Your task to perform on an android device: change text size in settings app Image 0: 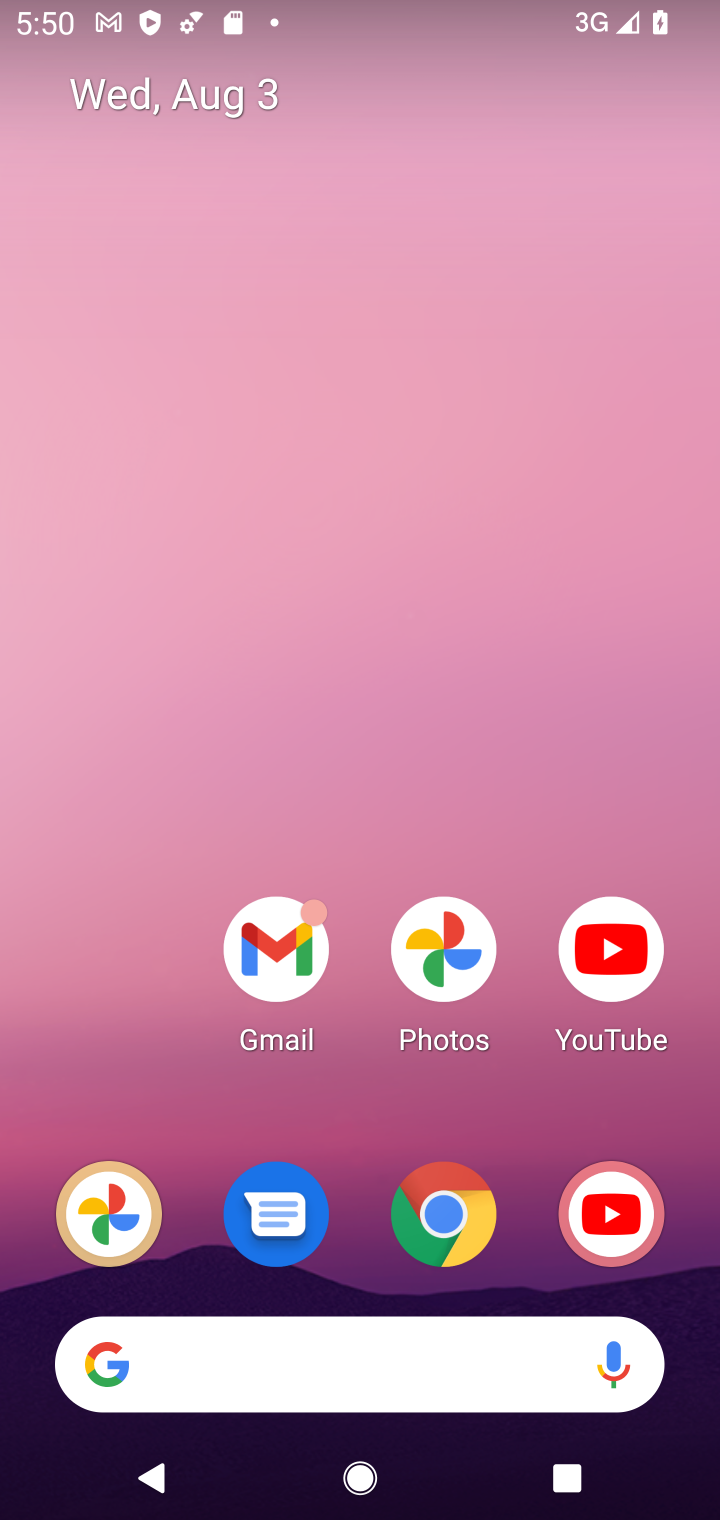
Step 0: drag from (365, 1174) to (399, 230)
Your task to perform on an android device: change text size in settings app Image 1: 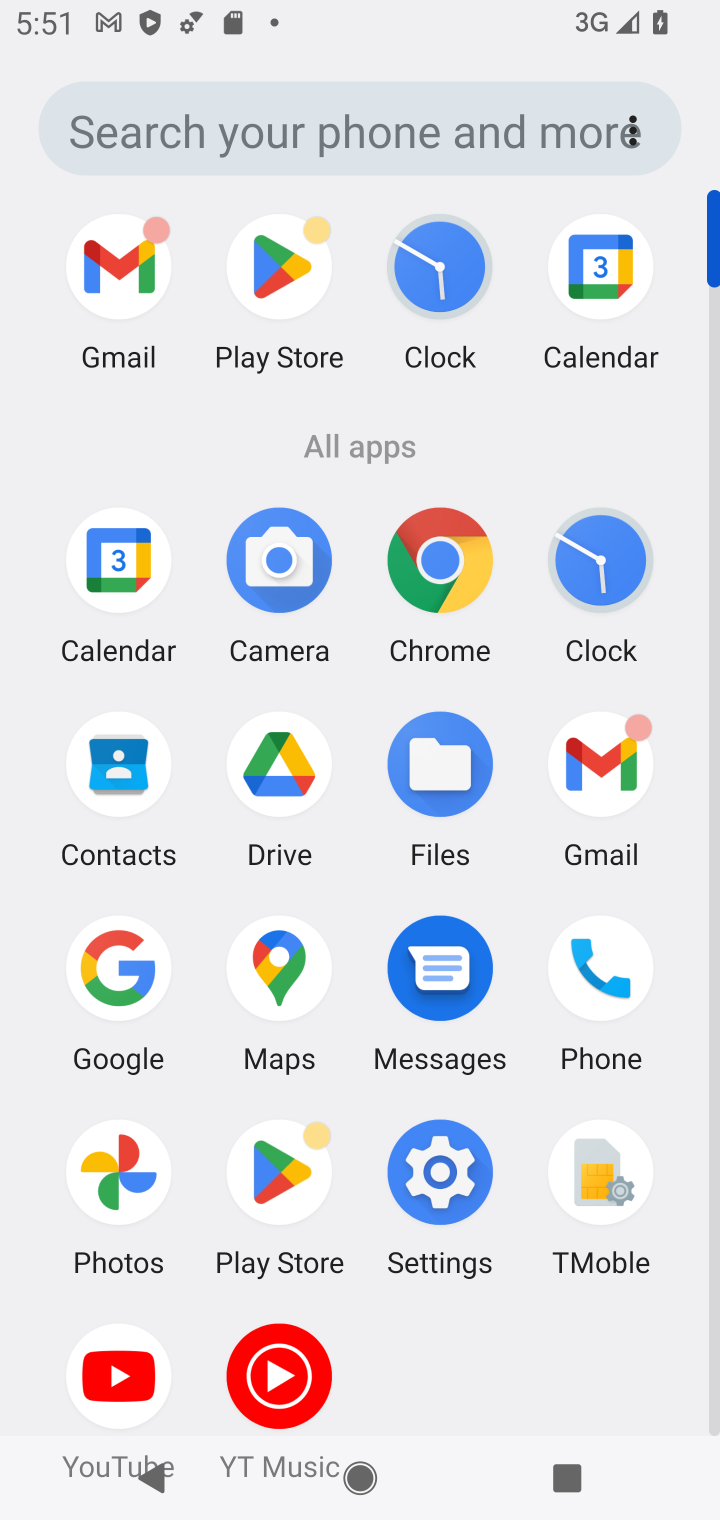
Step 1: click (423, 1153)
Your task to perform on an android device: change text size in settings app Image 2: 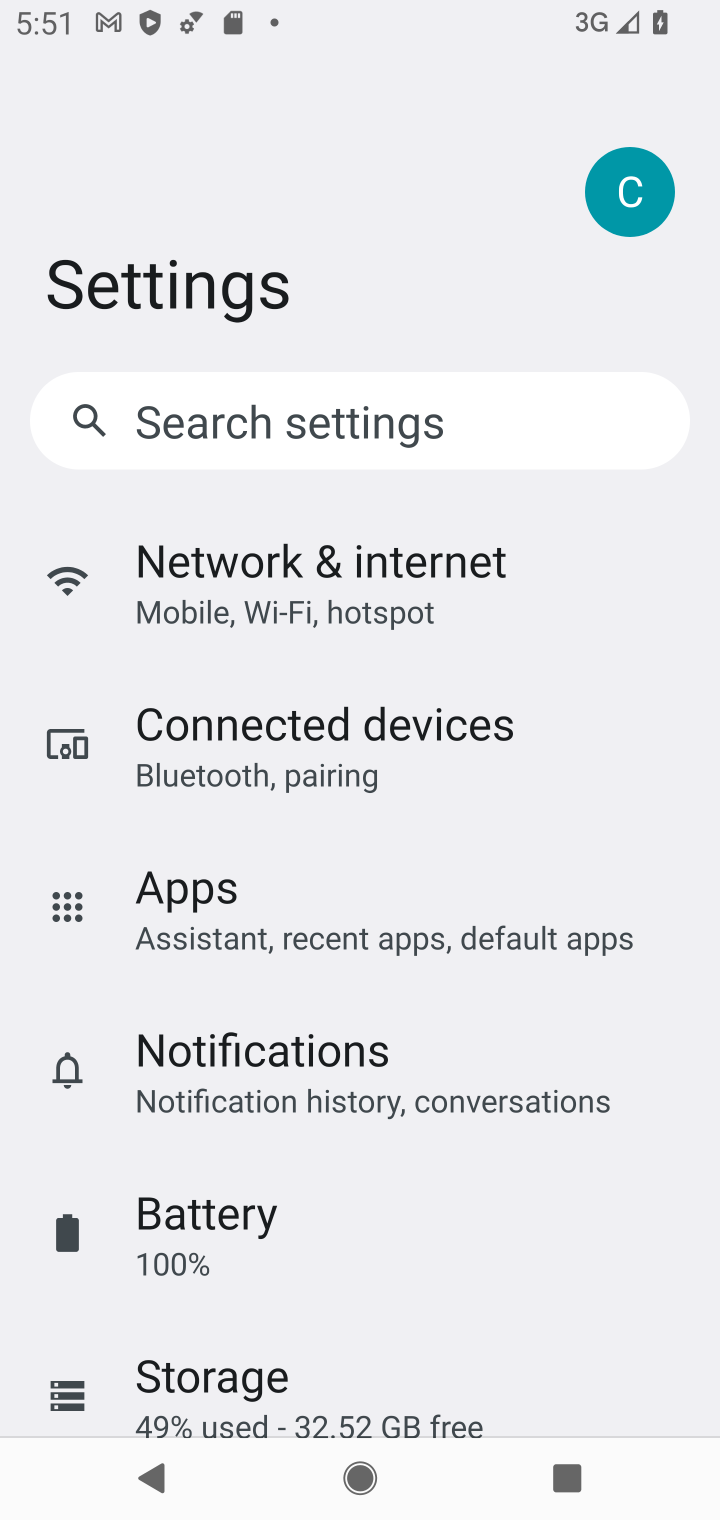
Step 2: drag from (321, 1331) to (300, 736)
Your task to perform on an android device: change text size in settings app Image 3: 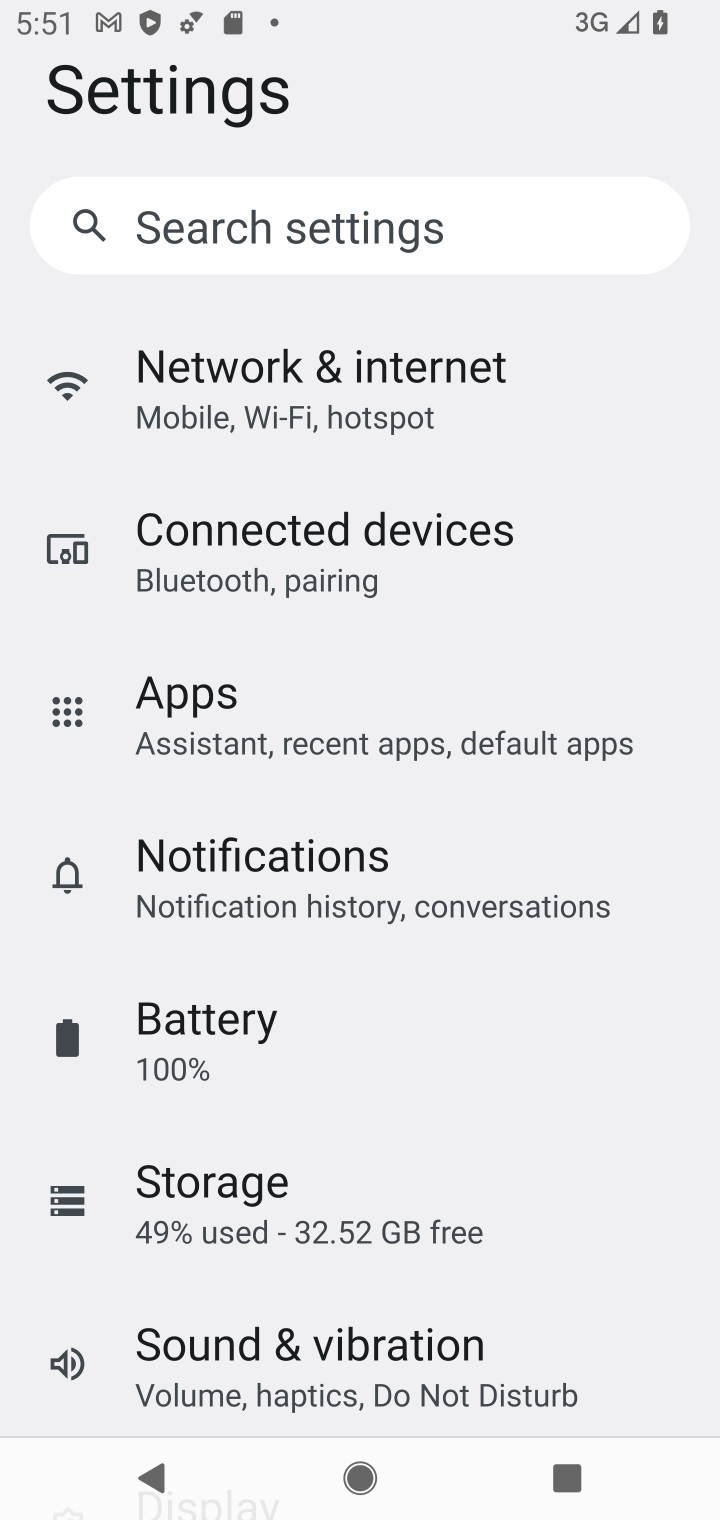
Step 3: drag from (260, 1343) to (189, 931)
Your task to perform on an android device: change text size in settings app Image 4: 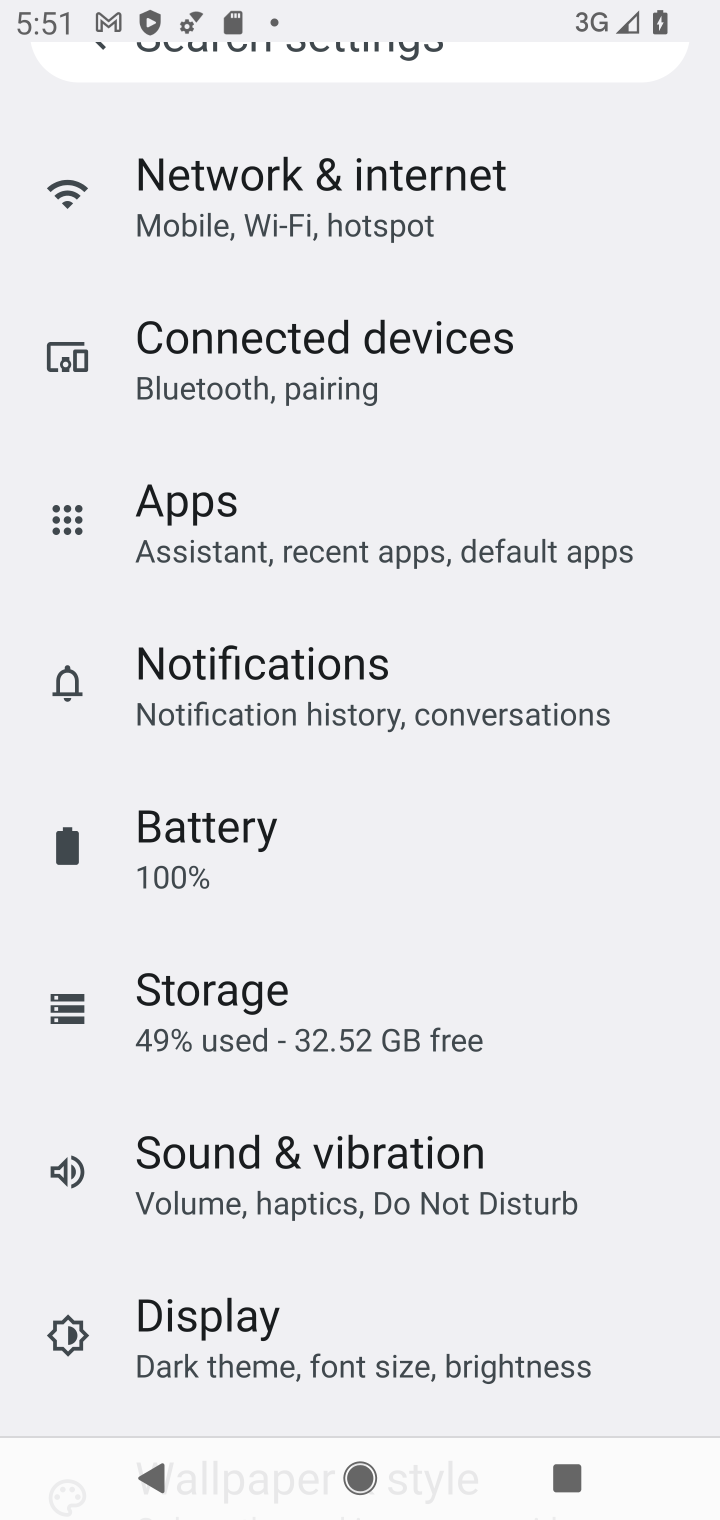
Step 4: click (336, 1356)
Your task to perform on an android device: change text size in settings app Image 5: 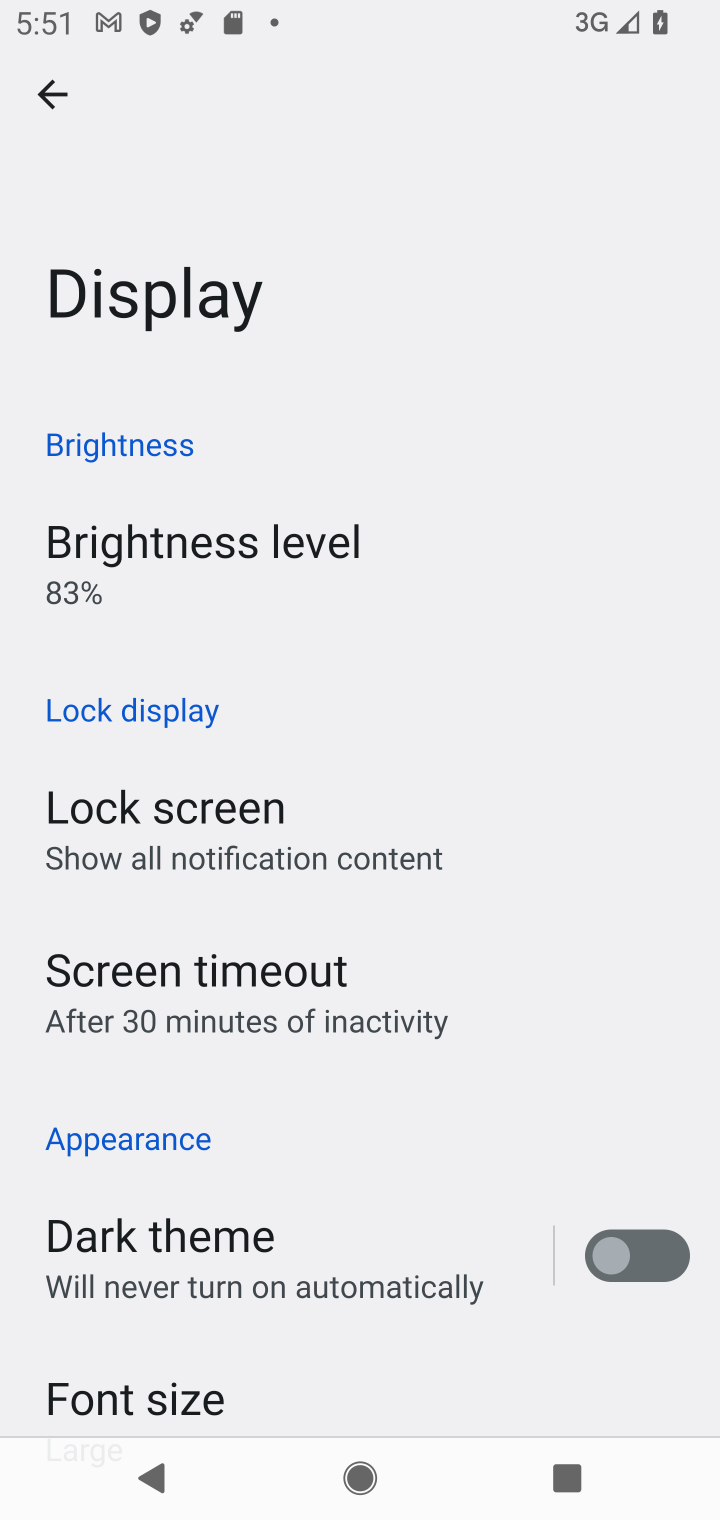
Step 5: click (225, 1381)
Your task to perform on an android device: change text size in settings app Image 6: 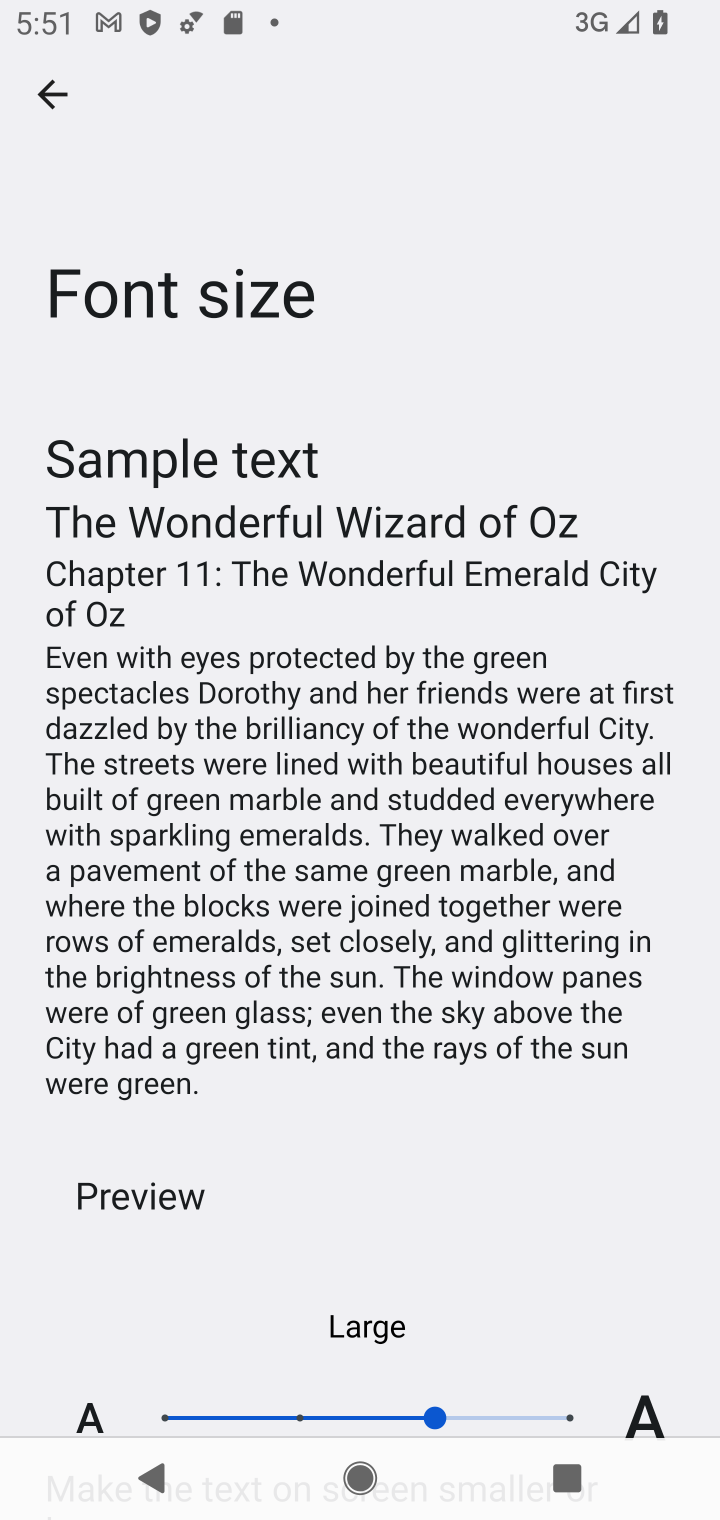
Step 6: click (576, 1427)
Your task to perform on an android device: change text size in settings app Image 7: 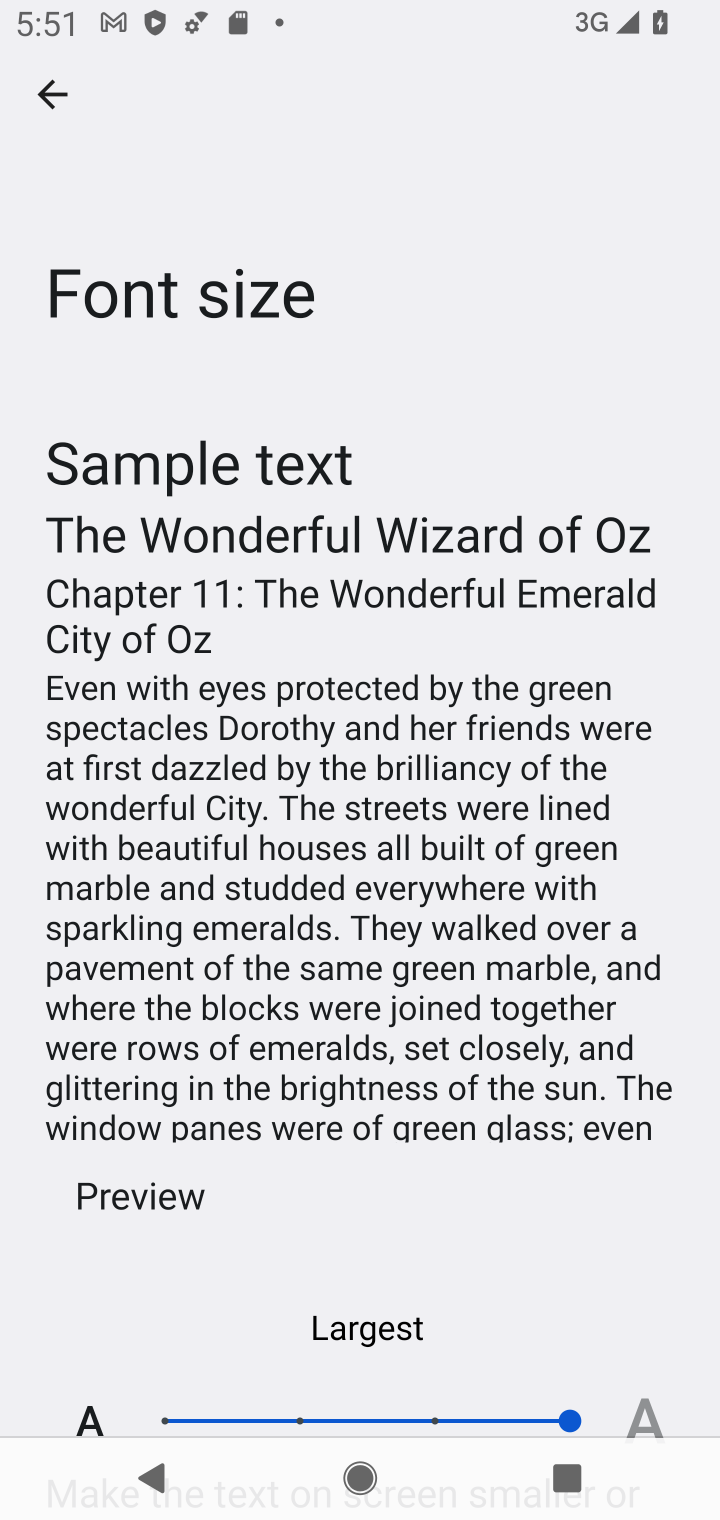
Step 7: task complete